Your task to perform on an android device: refresh tabs in the chrome app Image 0: 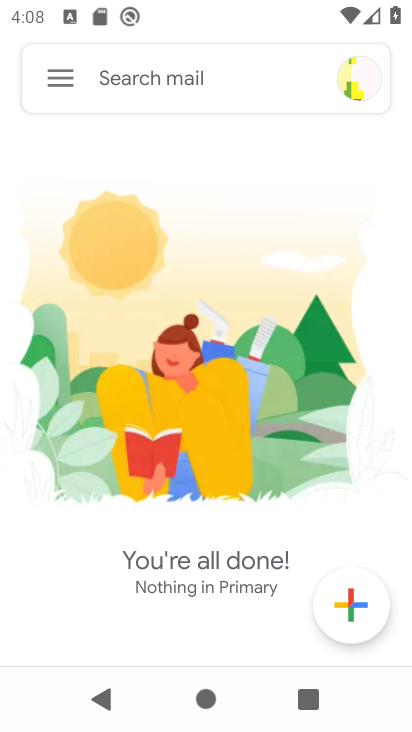
Step 0: press home button
Your task to perform on an android device: refresh tabs in the chrome app Image 1: 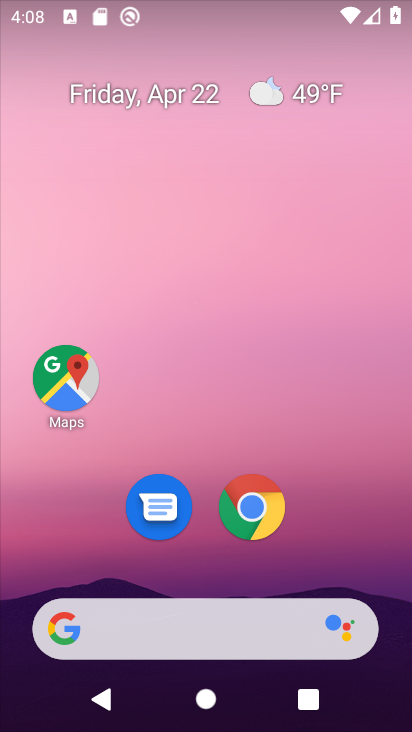
Step 1: click (250, 507)
Your task to perform on an android device: refresh tabs in the chrome app Image 2: 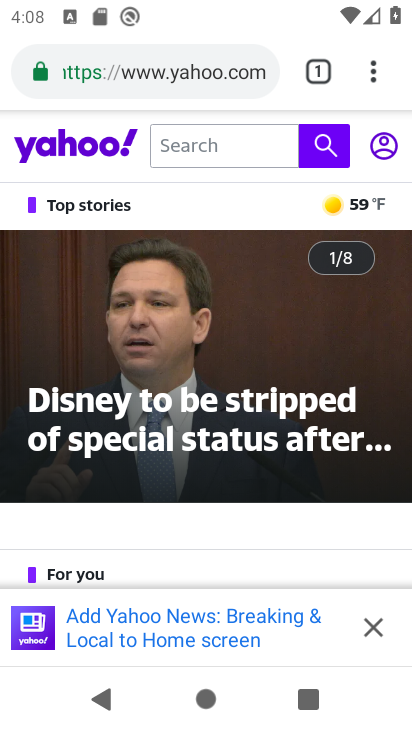
Step 2: click (373, 72)
Your task to perform on an android device: refresh tabs in the chrome app Image 3: 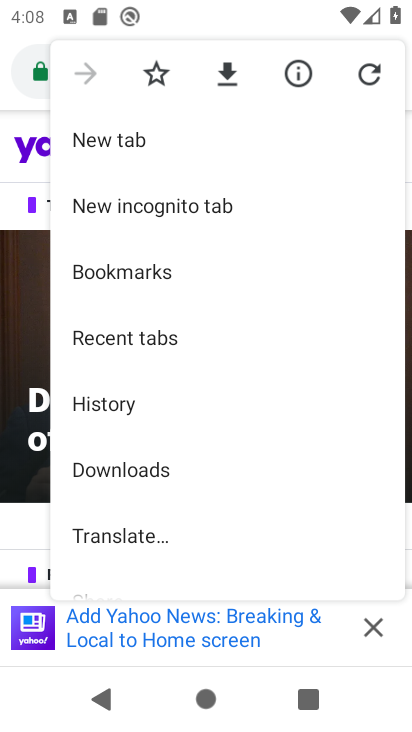
Step 3: click (364, 68)
Your task to perform on an android device: refresh tabs in the chrome app Image 4: 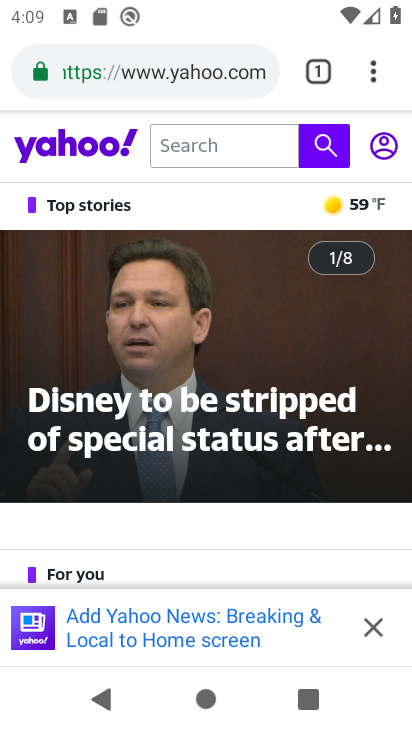
Step 4: task complete